Your task to perform on an android device: add a contact in the contacts app Image 0: 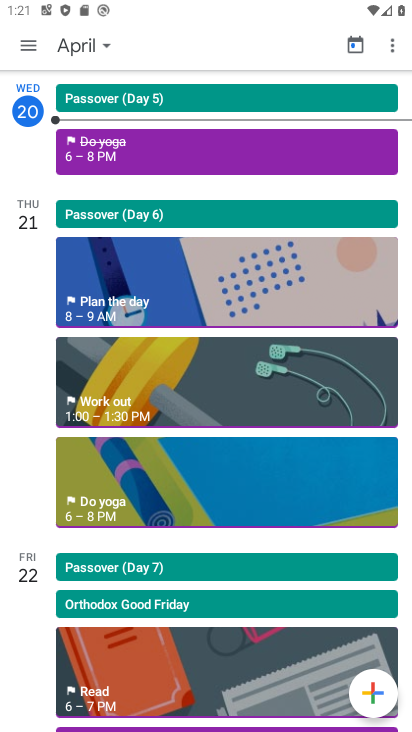
Step 0: drag from (349, 404) to (342, 101)
Your task to perform on an android device: add a contact in the contacts app Image 1: 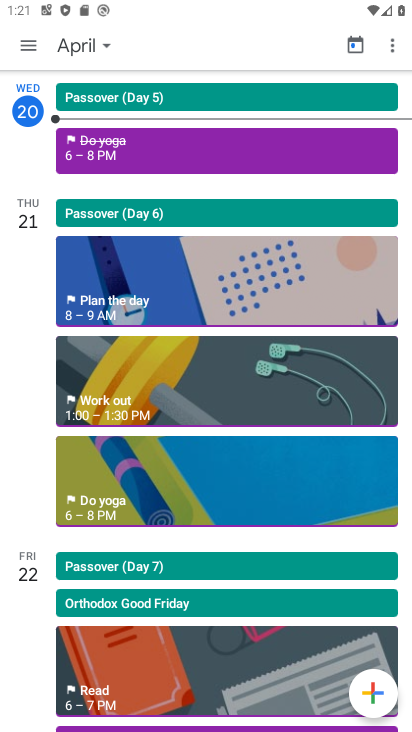
Step 1: press home button
Your task to perform on an android device: add a contact in the contacts app Image 2: 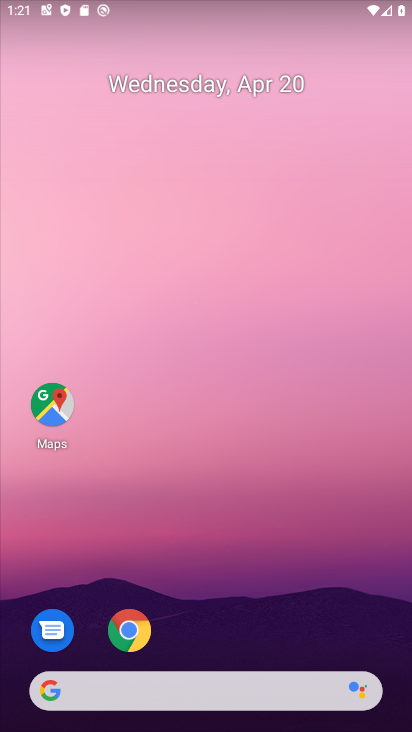
Step 2: drag from (364, 583) to (396, 209)
Your task to perform on an android device: add a contact in the contacts app Image 3: 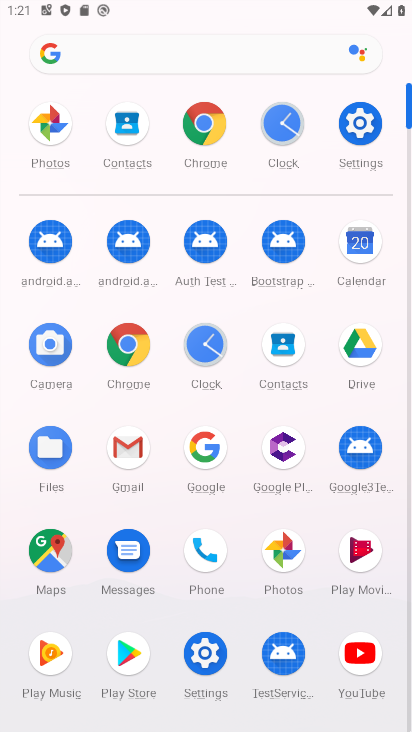
Step 3: click (278, 350)
Your task to perform on an android device: add a contact in the contacts app Image 4: 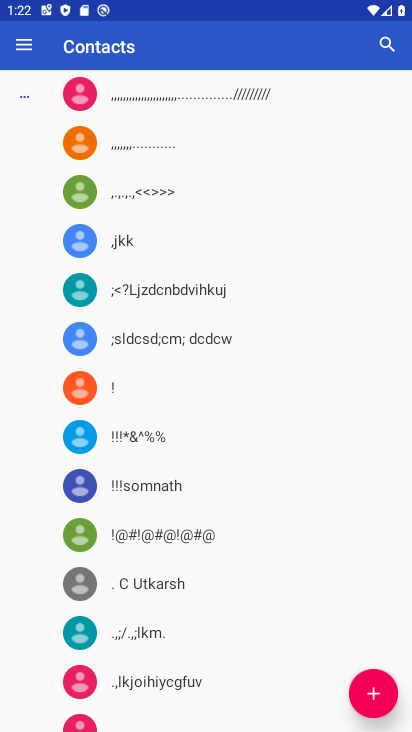
Step 4: click (367, 702)
Your task to perform on an android device: add a contact in the contacts app Image 5: 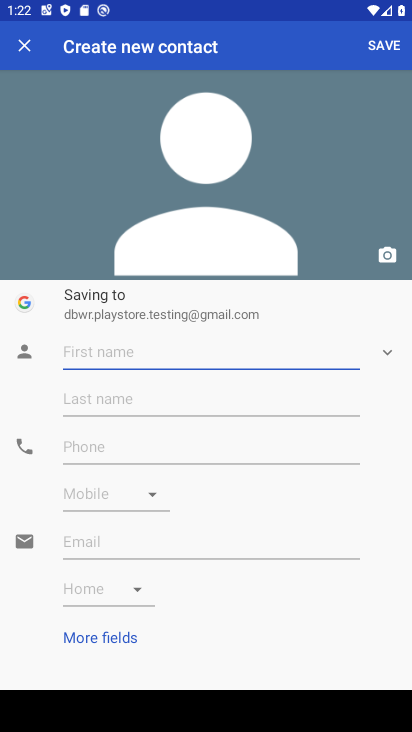
Step 5: type "lalu yadav"
Your task to perform on an android device: add a contact in the contacts app Image 6: 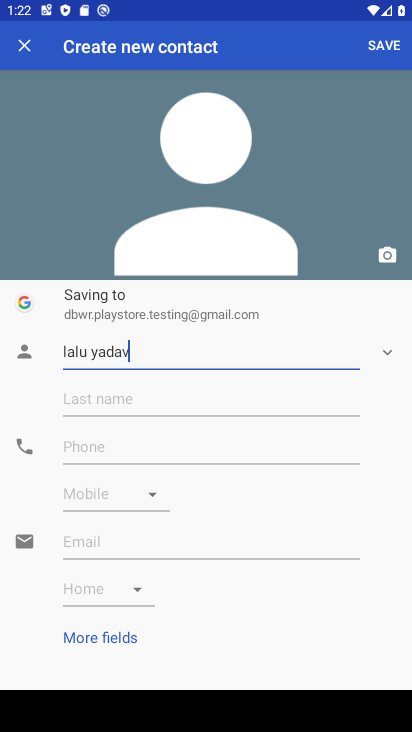
Step 6: click (235, 446)
Your task to perform on an android device: add a contact in the contacts app Image 7: 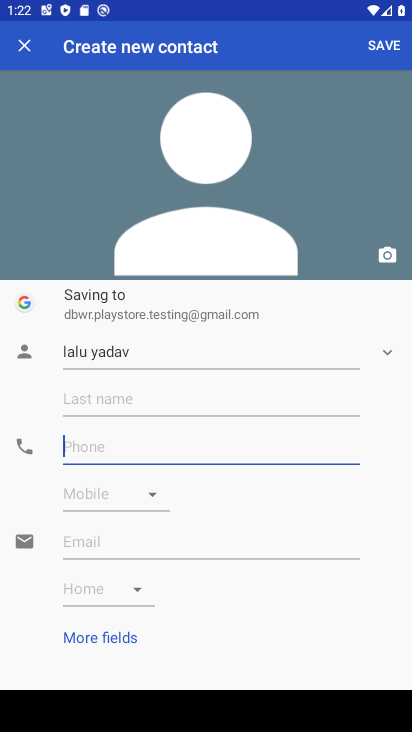
Step 7: type "583937583447"
Your task to perform on an android device: add a contact in the contacts app Image 8: 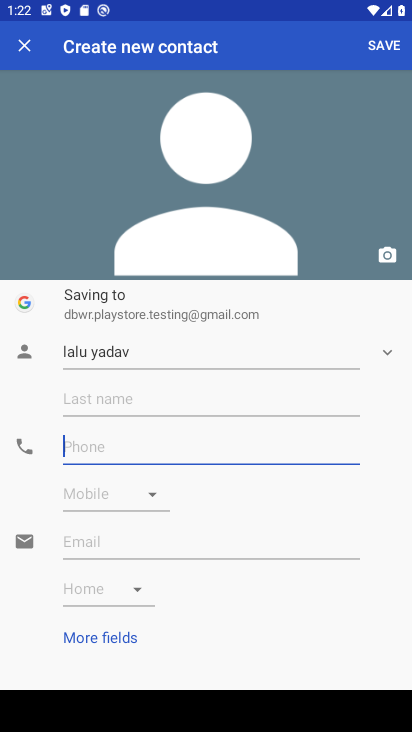
Step 8: click (387, 42)
Your task to perform on an android device: add a contact in the contacts app Image 9: 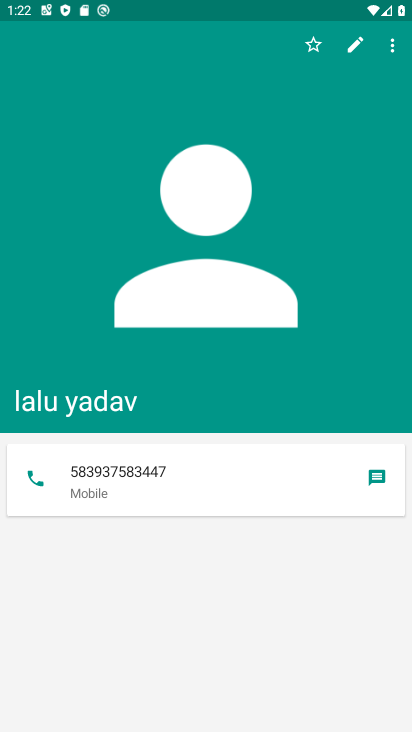
Step 9: task complete